Your task to perform on an android device: What's the weather going to be tomorrow? Image 0: 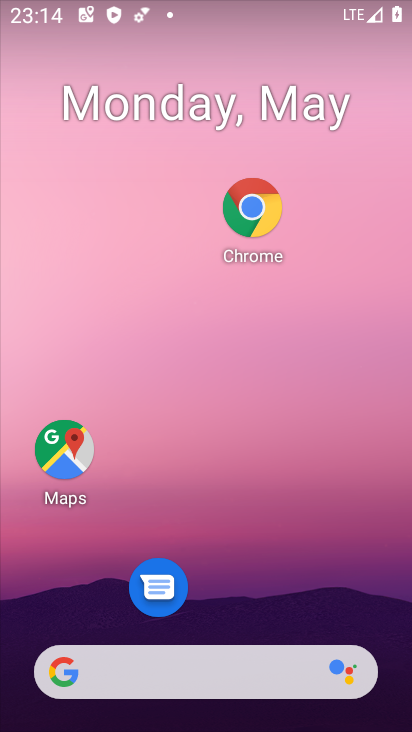
Step 0: drag from (79, 248) to (409, 358)
Your task to perform on an android device: What's the weather going to be tomorrow? Image 1: 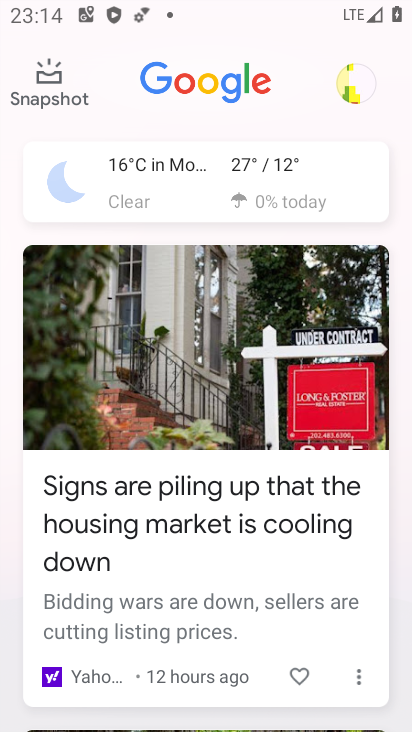
Step 1: click (156, 183)
Your task to perform on an android device: What's the weather going to be tomorrow? Image 2: 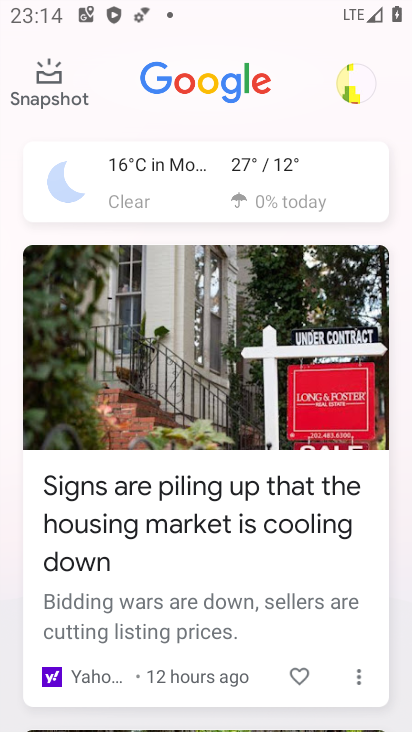
Step 2: click (156, 182)
Your task to perform on an android device: What's the weather going to be tomorrow? Image 3: 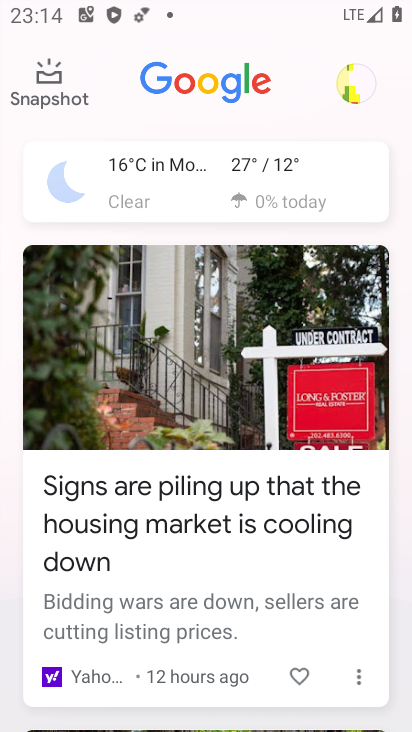
Step 3: click (156, 182)
Your task to perform on an android device: What's the weather going to be tomorrow? Image 4: 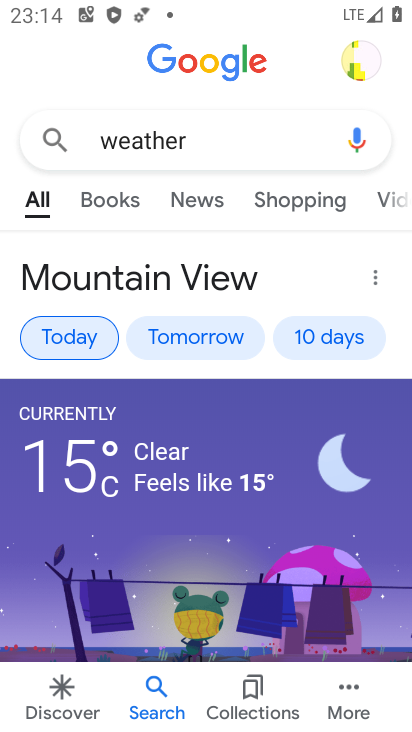
Step 4: task complete